Your task to perform on an android device: Go to internet settings Image 0: 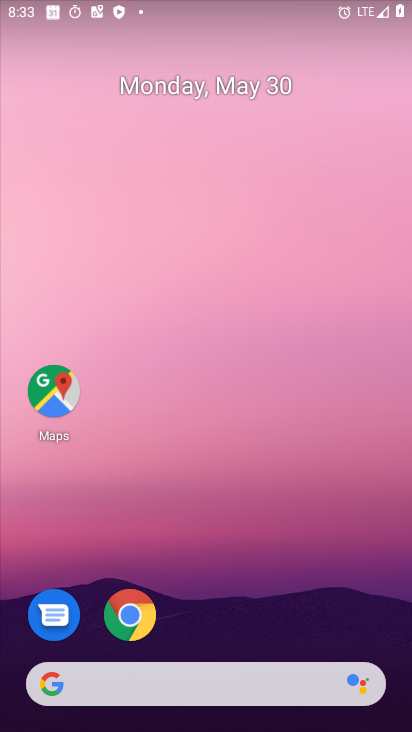
Step 0: drag from (362, 519) to (368, 175)
Your task to perform on an android device: Go to internet settings Image 1: 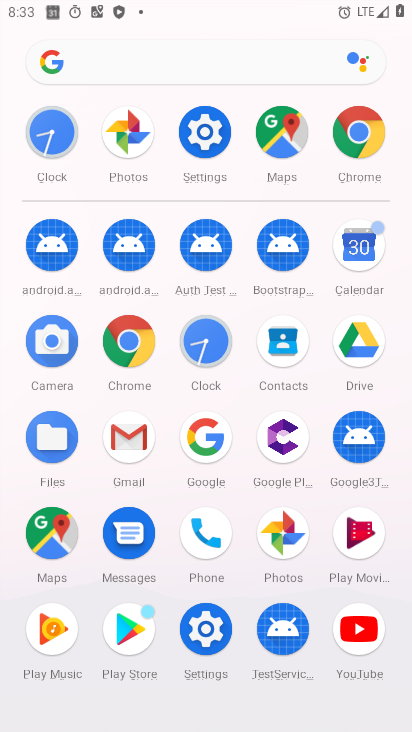
Step 1: click (207, 136)
Your task to perform on an android device: Go to internet settings Image 2: 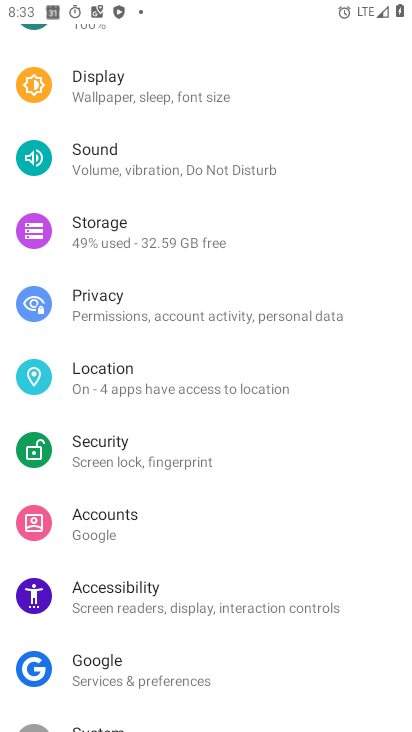
Step 2: drag from (213, 146) to (155, 513)
Your task to perform on an android device: Go to internet settings Image 3: 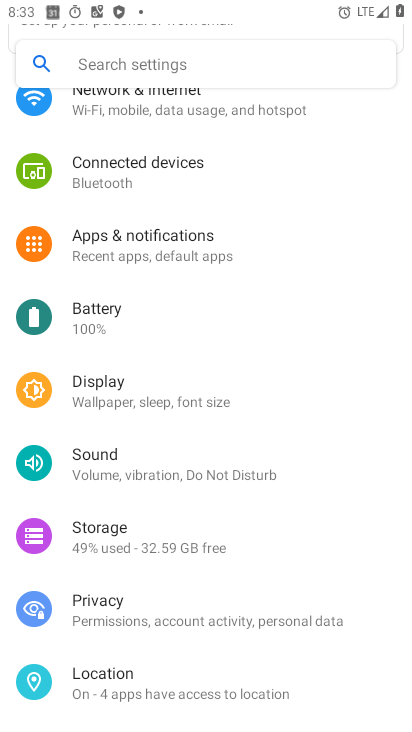
Step 3: drag from (189, 196) to (178, 558)
Your task to perform on an android device: Go to internet settings Image 4: 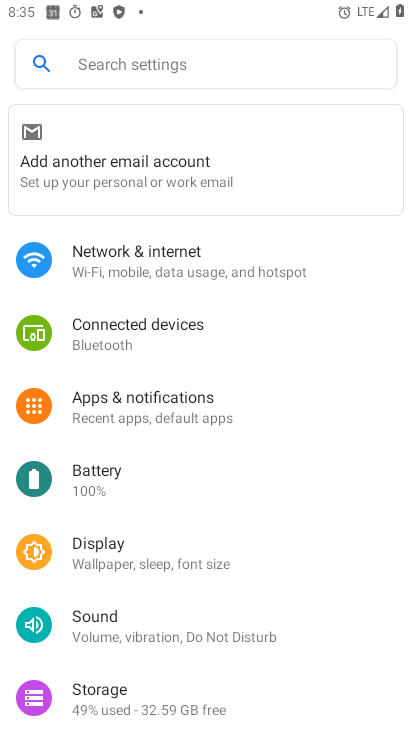
Step 4: click (101, 230)
Your task to perform on an android device: Go to internet settings Image 5: 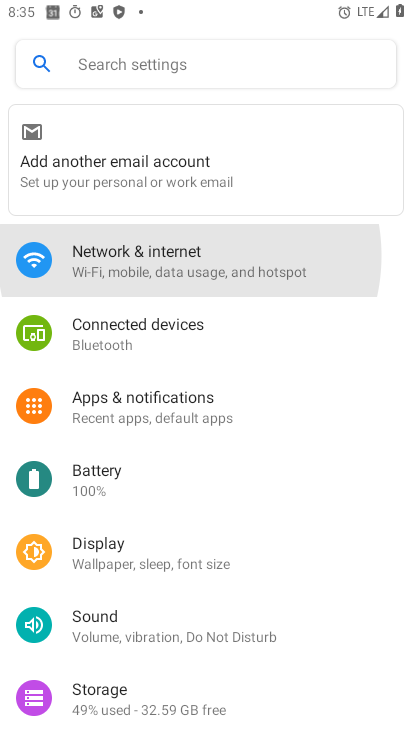
Step 5: click (98, 260)
Your task to perform on an android device: Go to internet settings Image 6: 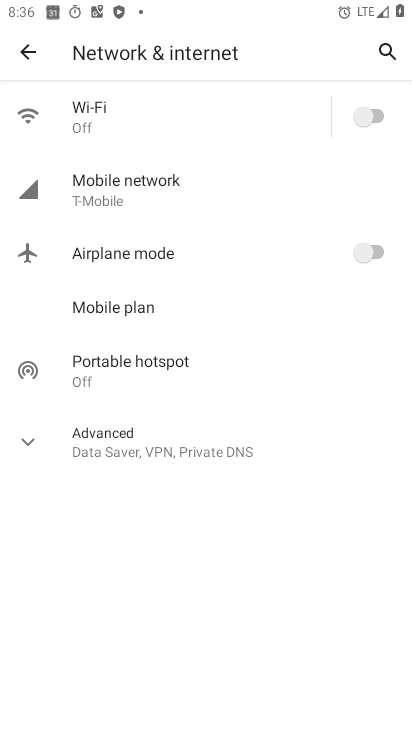
Step 6: task complete